Your task to perform on an android device: find snoozed emails in the gmail app Image 0: 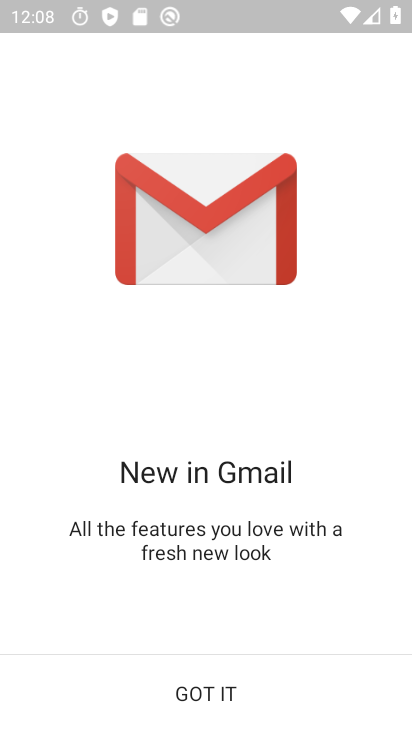
Step 0: drag from (355, 571) to (407, 346)
Your task to perform on an android device: find snoozed emails in the gmail app Image 1: 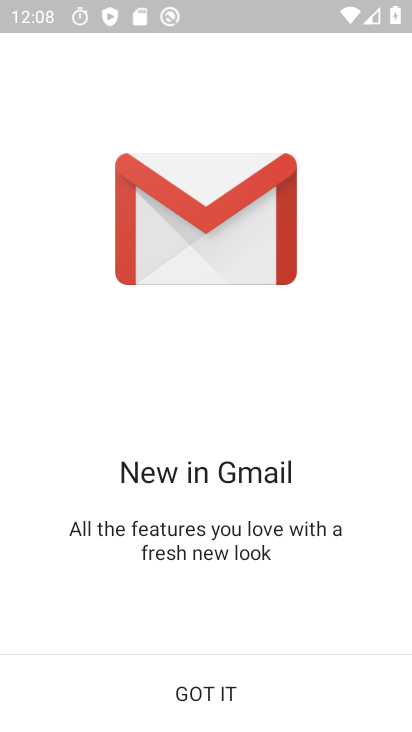
Step 1: press home button
Your task to perform on an android device: find snoozed emails in the gmail app Image 2: 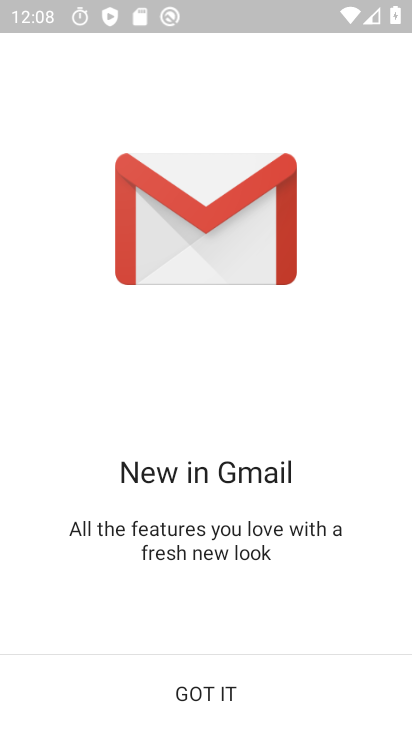
Step 2: click (409, 512)
Your task to perform on an android device: find snoozed emails in the gmail app Image 3: 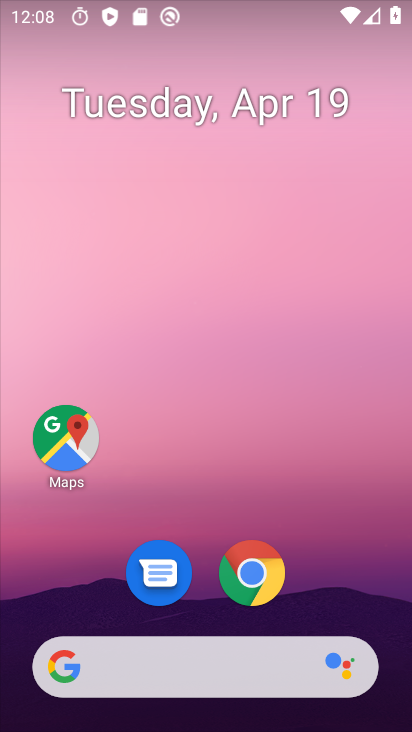
Step 3: drag from (338, 546) to (303, 220)
Your task to perform on an android device: find snoozed emails in the gmail app Image 4: 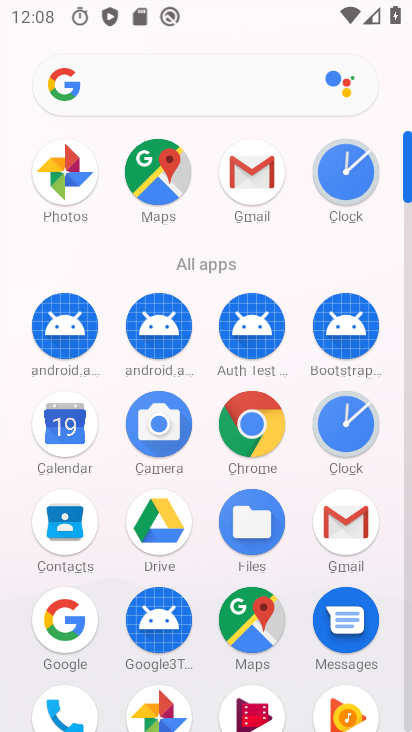
Step 4: click (250, 186)
Your task to perform on an android device: find snoozed emails in the gmail app Image 5: 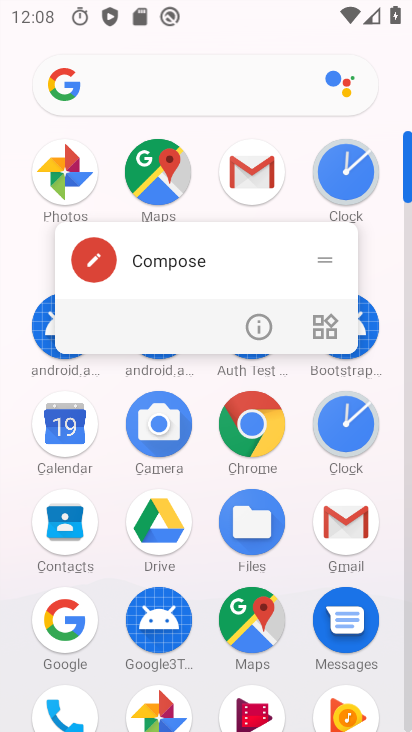
Step 5: click (246, 168)
Your task to perform on an android device: find snoozed emails in the gmail app Image 6: 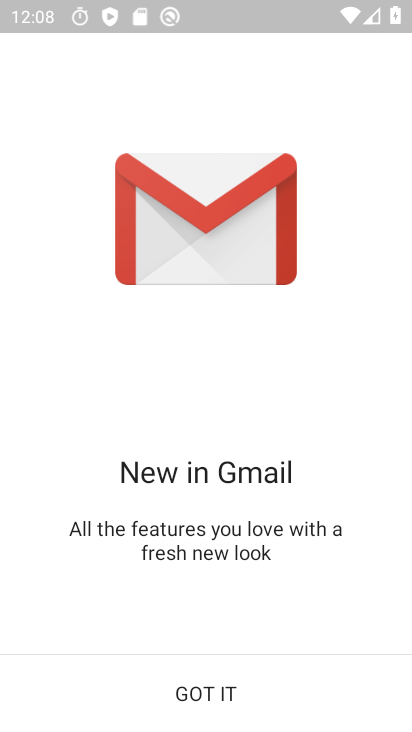
Step 6: click (199, 689)
Your task to perform on an android device: find snoozed emails in the gmail app Image 7: 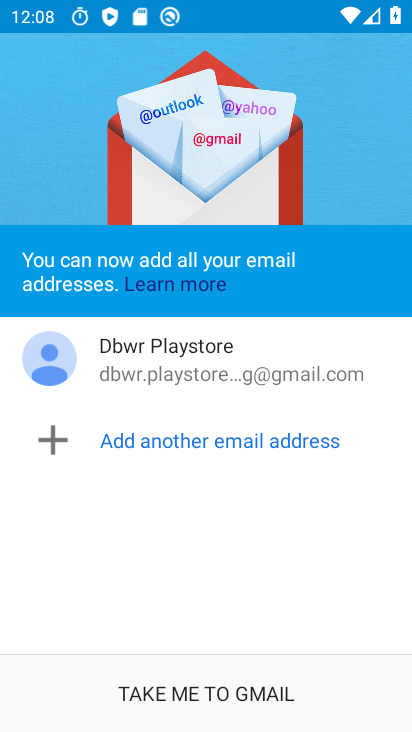
Step 7: click (199, 689)
Your task to perform on an android device: find snoozed emails in the gmail app Image 8: 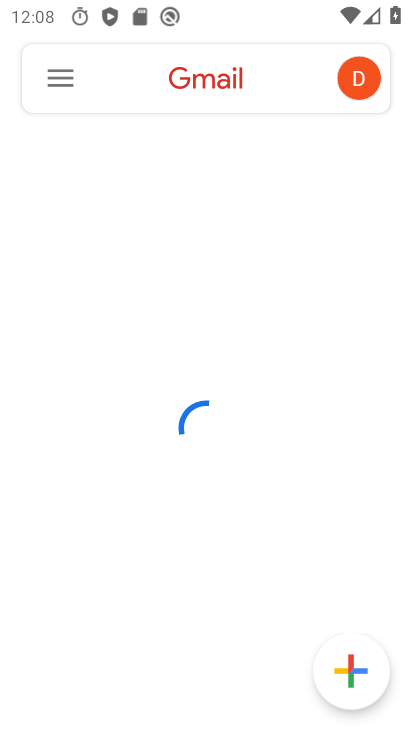
Step 8: click (59, 73)
Your task to perform on an android device: find snoozed emails in the gmail app Image 9: 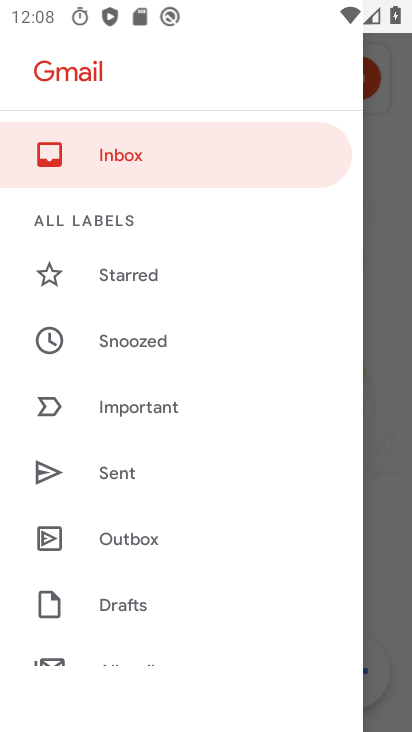
Step 9: click (151, 348)
Your task to perform on an android device: find snoozed emails in the gmail app Image 10: 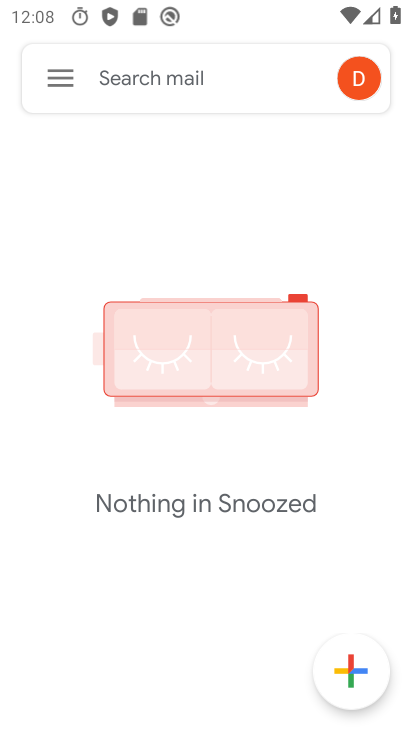
Step 10: task complete